Your task to perform on an android device: Go to internet settings Image 0: 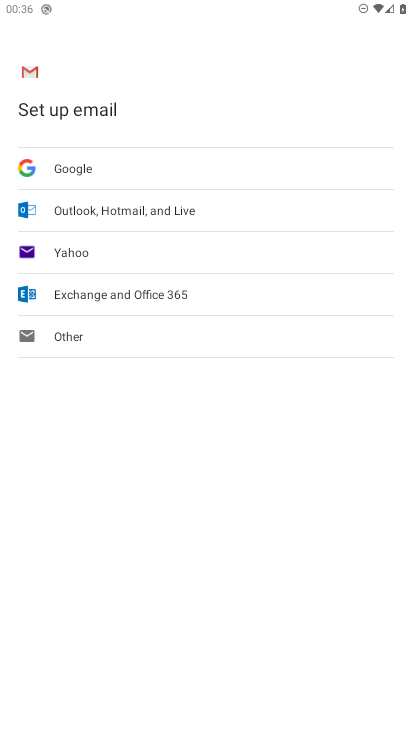
Step 0: press home button
Your task to perform on an android device: Go to internet settings Image 1: 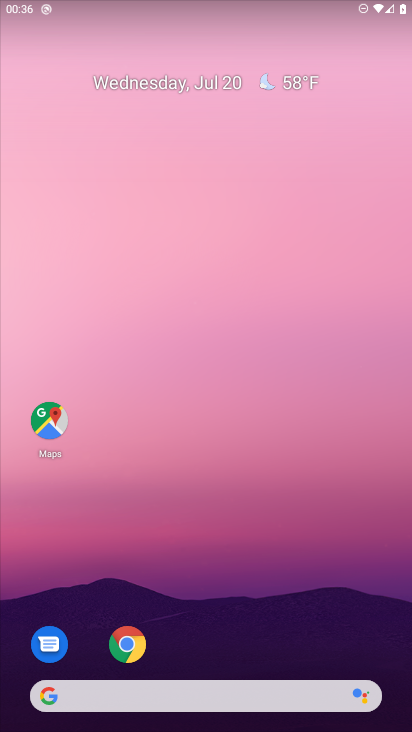
Step 1: click (215, 145)
Your task to perform on an android device: Go to internet settings Image 2: 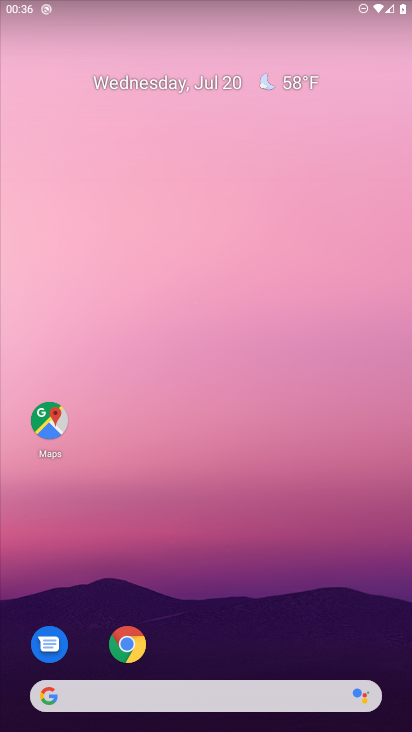
Step 2: drag from (29, 655) to (292, 46)
Your task to perform on an android device: Go to internet settings Image 3: 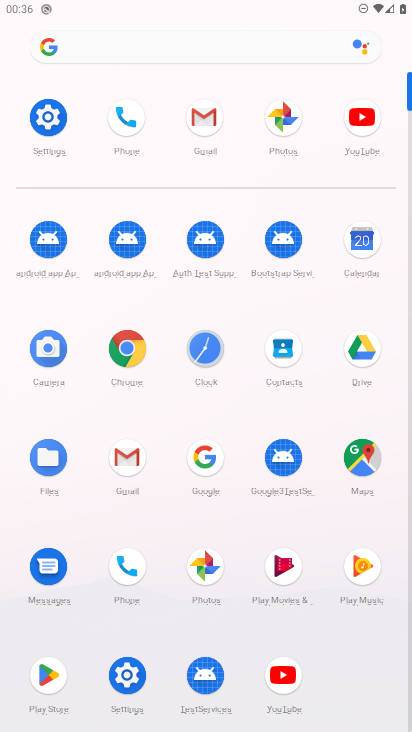
Step 3: click (142, 689)
Your task to perform on an android device: Go to internet settings Image 4: 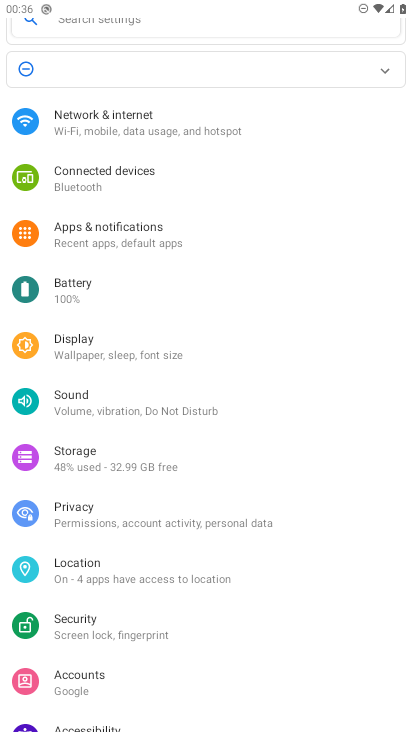
Step 4: click (98, 121)
Your task to perform on an android device: Go to internet settings Image 5: 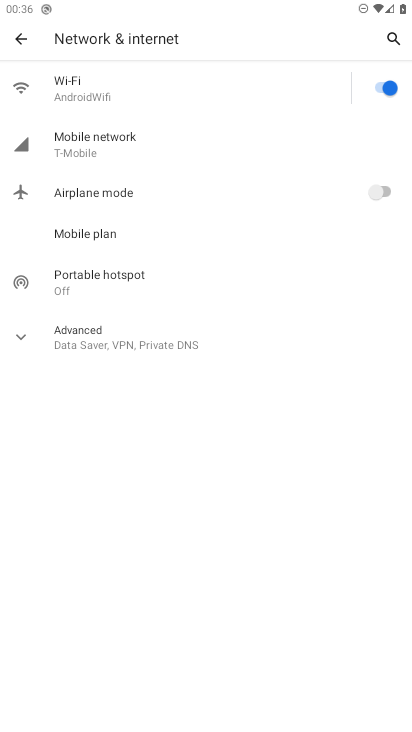
Step 5: task complete